Your task to perform on an android device: turn off picture-in-picture Image 0: 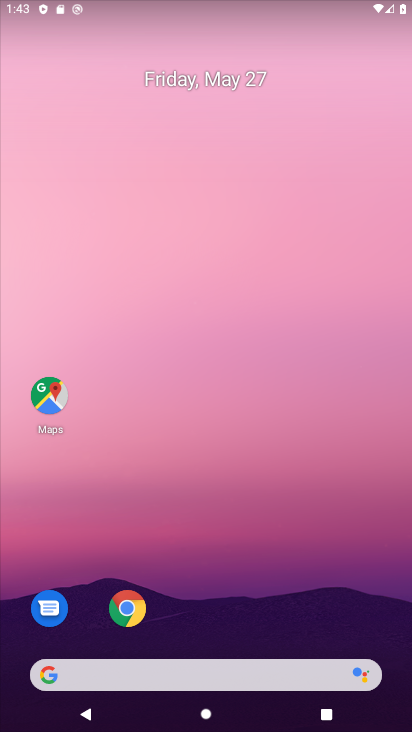
Step 0: click (126, 605)
Your task to perform on an android device: turn off picture-in-picture Image 1: 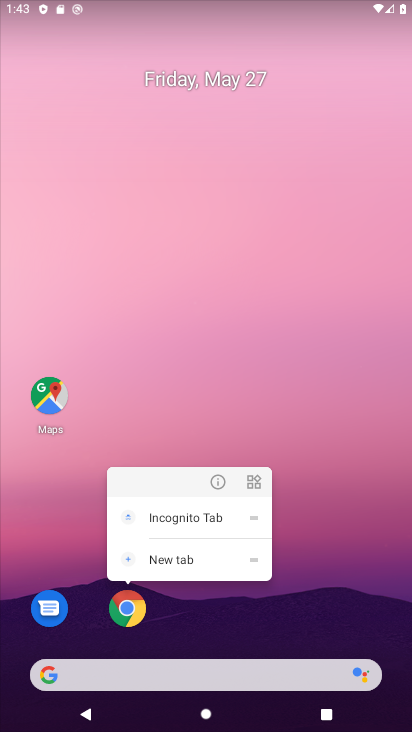
Step 1: click (215, 484)
Your task to perform on an android device: turn off picture-in-picture Image 2: 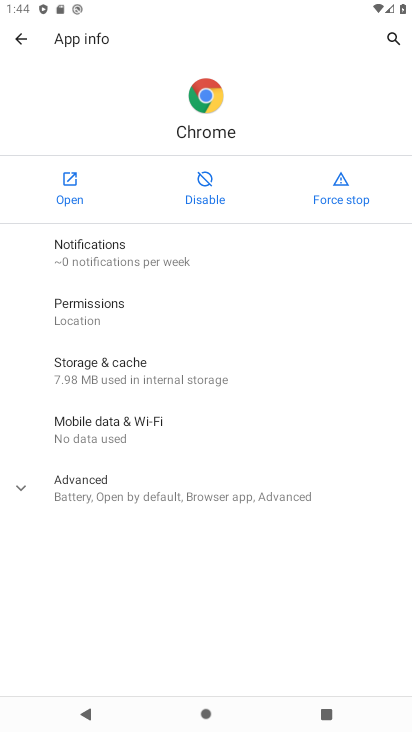
Step 2: click (18, 483)
Your task to perform on an android device: turn off picture-in-picture Image 3: 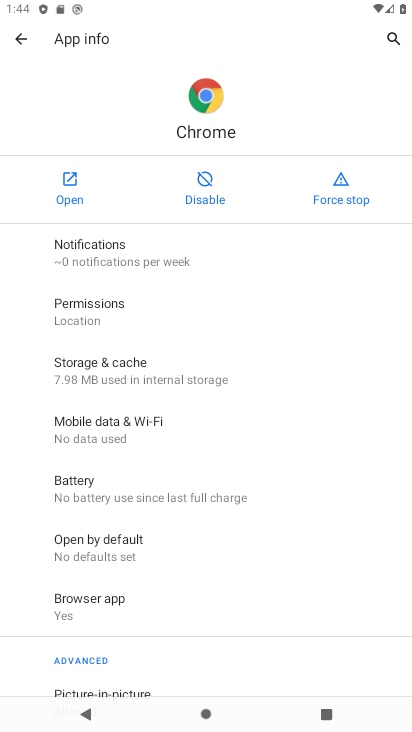
Step 3: drag from (342, 639) to (285, 409)
Your task to perform on an android device: turn off picture-in-picture Image 4: 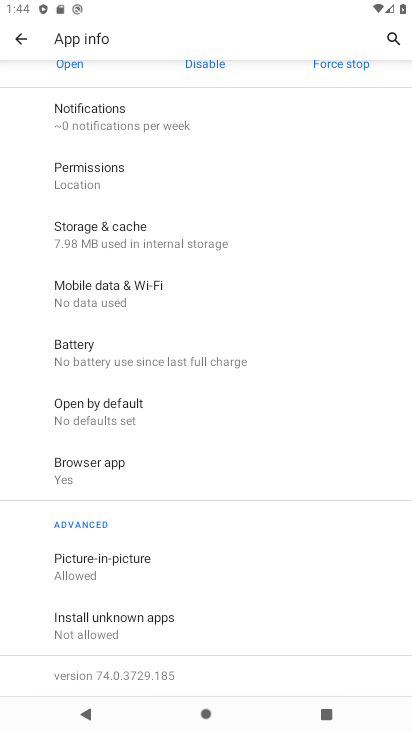
Step 4: click (114, 570)
Your task to perform on an android device: turn off picture-in-picture Image 5: 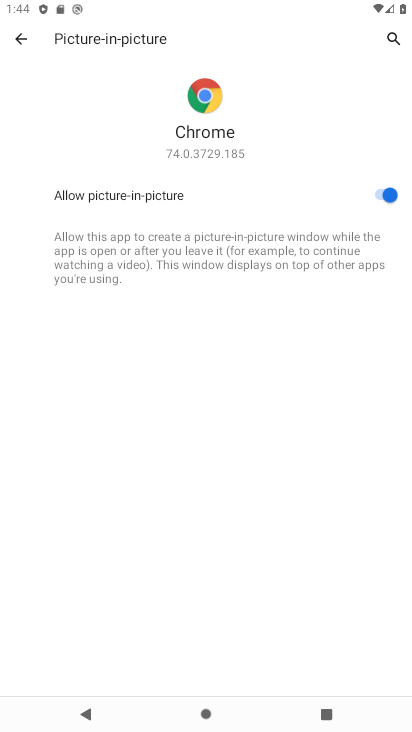
Step 5: click (384, 196)
Your task to perform on an android device: turn off picture-in-picture Image 6: 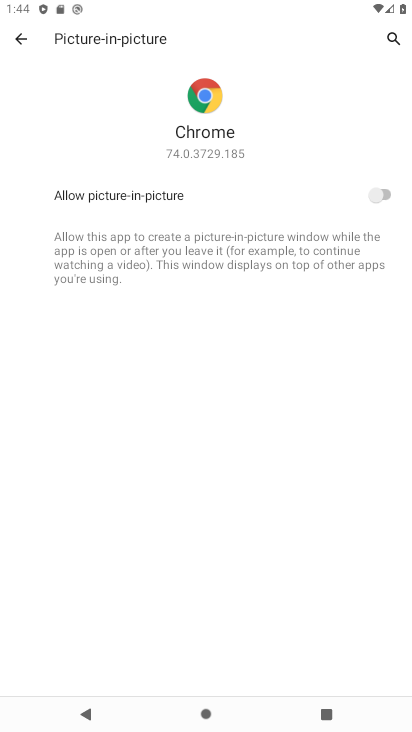
Step 6: task complete